Your task to perform on an android device: set an alarm Image 0: 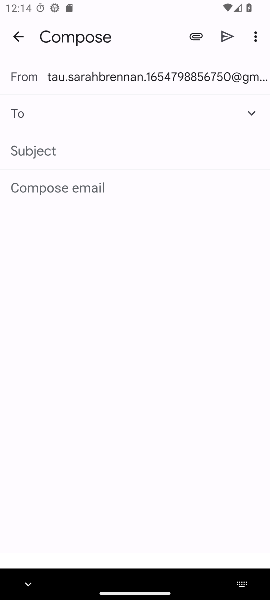
Step 0: press home button
Your task to perform on an android device: set an alarm Image 1: 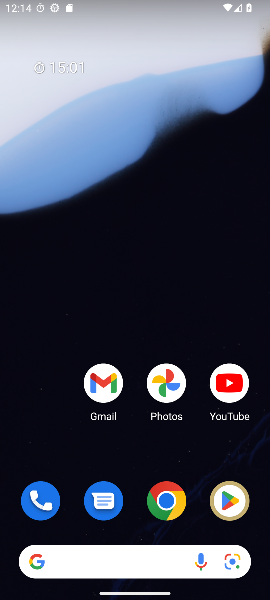
Step 1: drag from (182, 458) to (145, 202)
Your task to perform on an android device: set an alarm Image 2: 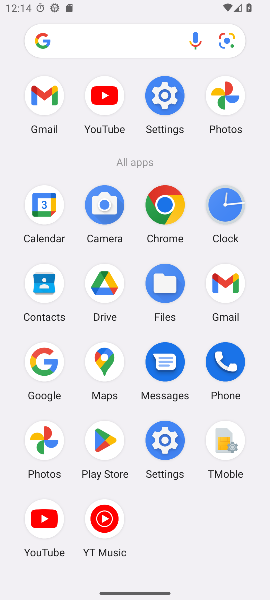
Step 2: click (225, 200)
Your task to perform on an android device: set an alarm Image 3: 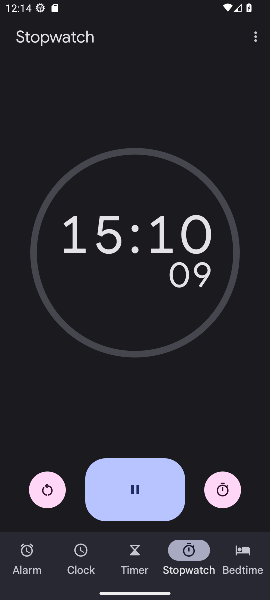
Step 3: click (33, 558)
Your task to perform on an android device: set an alarm Image 4: 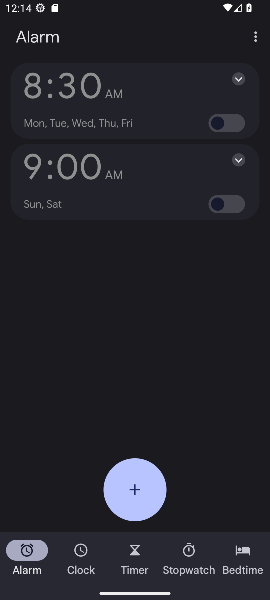
Step 4: click (230, 208)
Your task to perform on an android device: set an alarm Image 5: 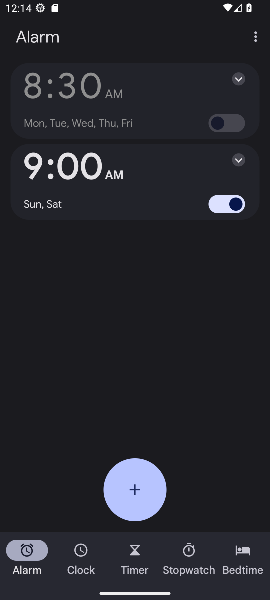
Step 5: task complete